Your task to perform on an android device: open app "Speedtest by Ookla" (install if not already installed) Image 0: 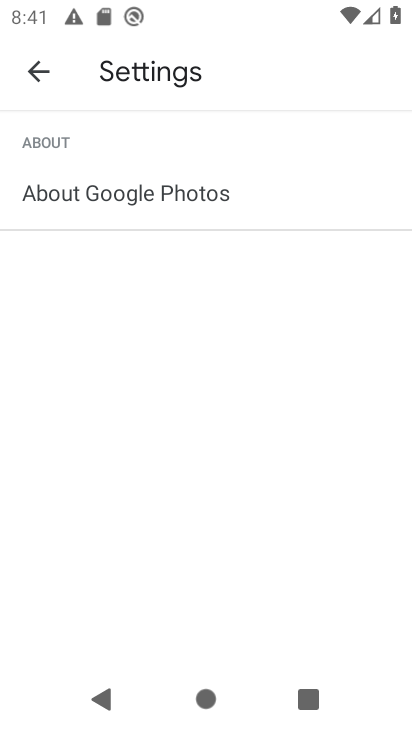
Step 0: press home button
Your task to perform on an android device: open app "Speedtest by Ookla" (install if not already installed) Image 1: 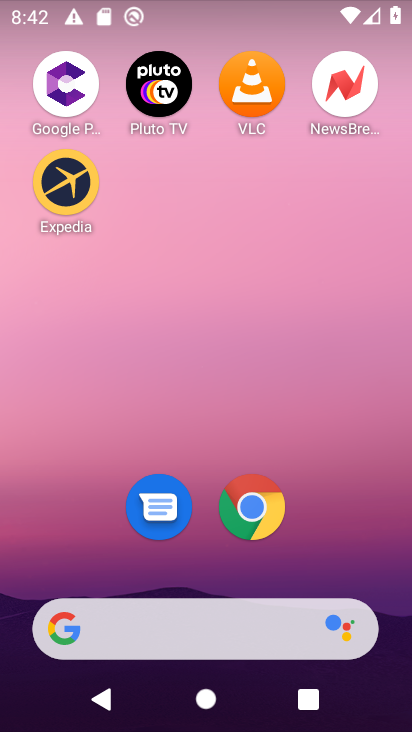
Step 1: drag from (157, 632) to (231, 105)
Your task to perform on an android device: open app "Speedtest by Ookla" (install if not already installed) Image 2: 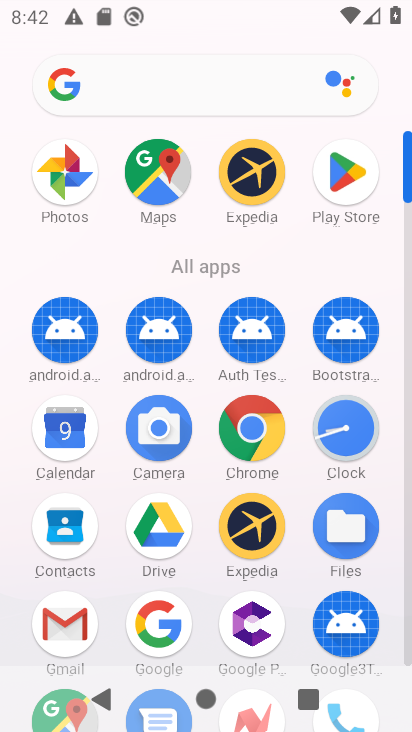
Step 2: drag from (212, 596) to (226, 270)
Your task to perform on an android device: open app "Speedtest by Ookla" (install if not already installed) Image 3: 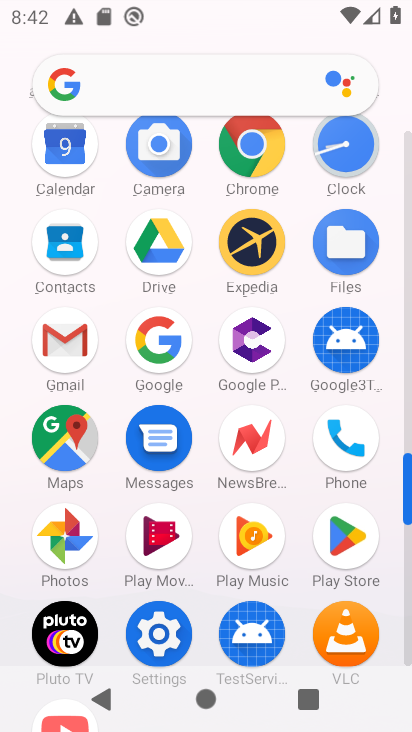
Step 3: click (356, 533)
Your task to perform on an android device: open app "Speedtest by Ookla" (install if not already installed) Image 4: 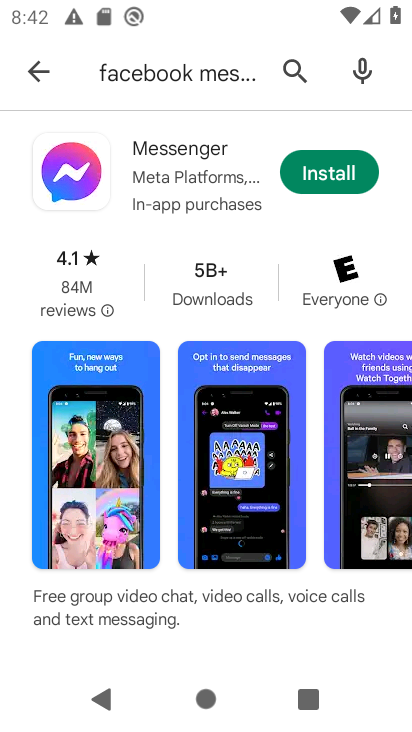
Step 4: click (295, 62)
Your task to perform on an android device: open app "Speedtest by Ookla" (install if not already installed) Image 5: 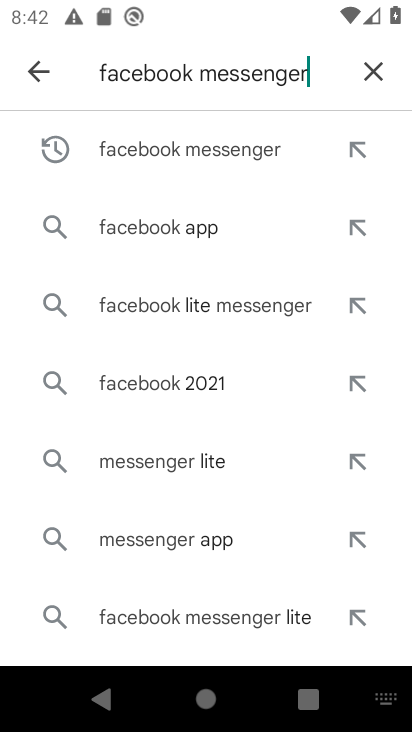
Step 5: click (372, 69)
Your task to perform on an android device: open app "Speedtest by Ookla" (install if not already installed) Image 6: 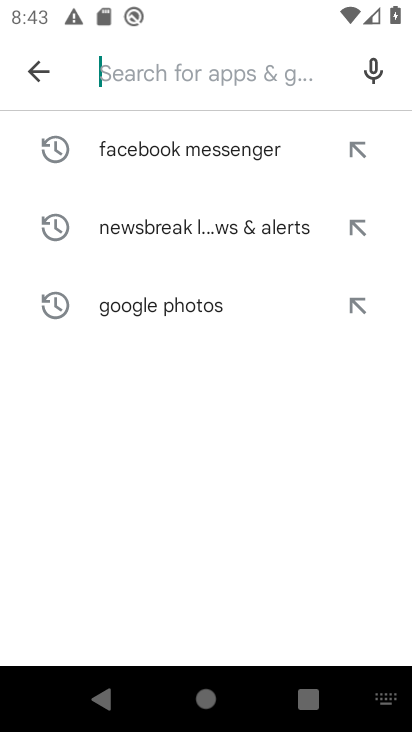
Step 6: type "Speedtest by Ookla"
Your task to perform on an android device: open app "Speedtest by Ookla" (install if not already installed) Image 7: 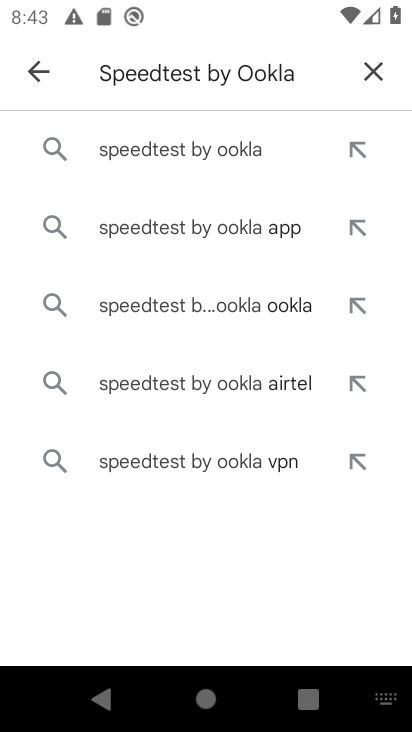
Step 7: click (222, 151)
Your task to perform on an android device: open app "Speedtest by Ookla" (install if not already installed) Image 8: 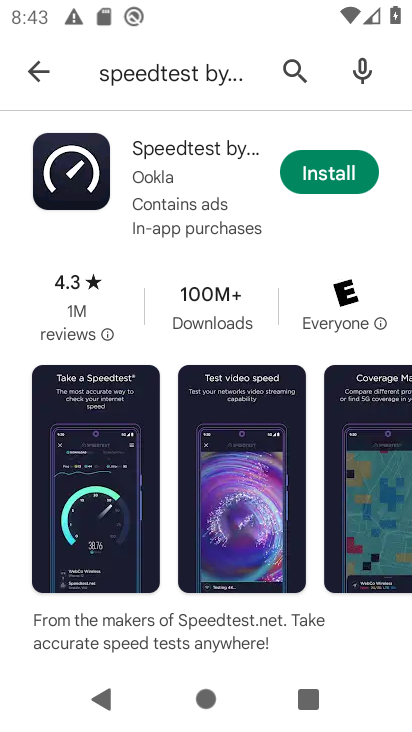
Step 8: click (318, 170)
Your task to perform on an android device: open app "Speedtest by Ookla" (install if not already installed) Image 9: 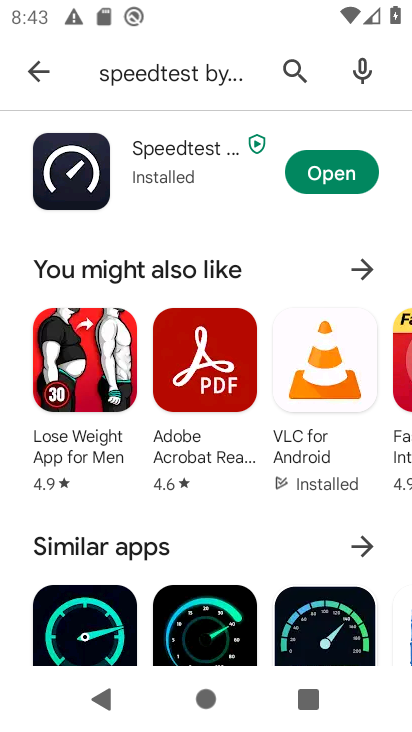
Step 9: click (338, 176)
Your task to perform on an android device: open app "Speedtest by Ookla" (install if not already installed) Image 10: 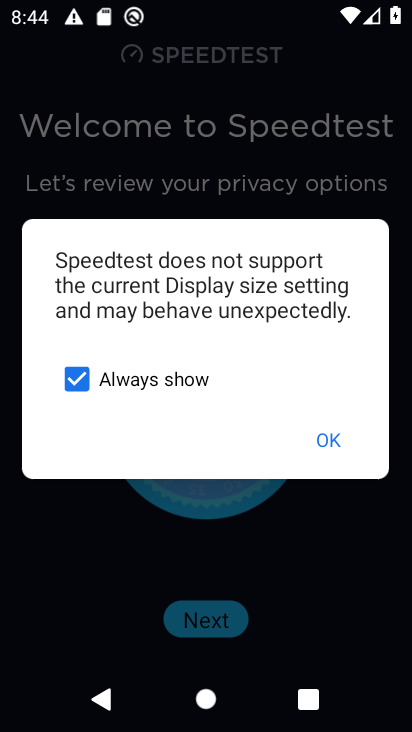
Step 10: click (328, 438)
Your task to perform on an android device: open app "Speedtest by Ookla" (install if not already installed) Image 11: 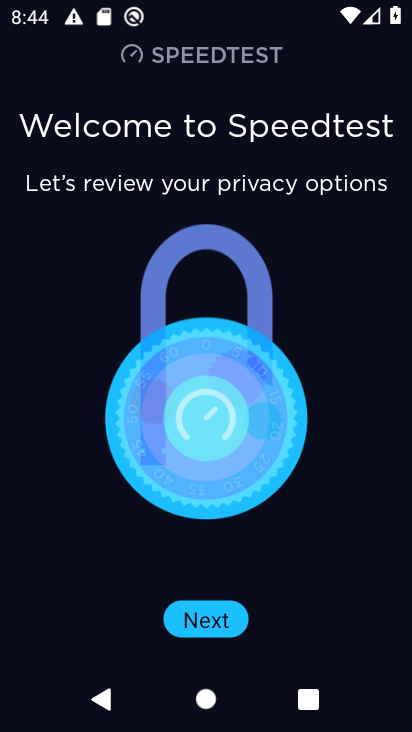
Step 11: click (205, 618)
Your task to perform on an android device: open app "Speedtest by Ookla" (install if not already installed) Image 12: 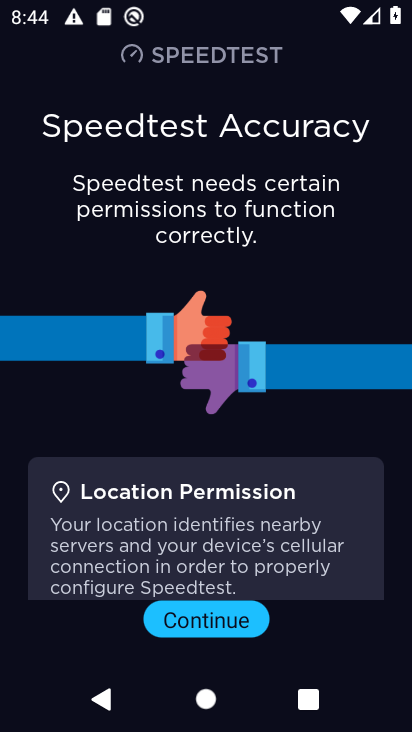
Step 12: click (205, 618)
Your task to perform on an android device: open app "Speedtest by Ookla" (install if not already installed) Image 13: 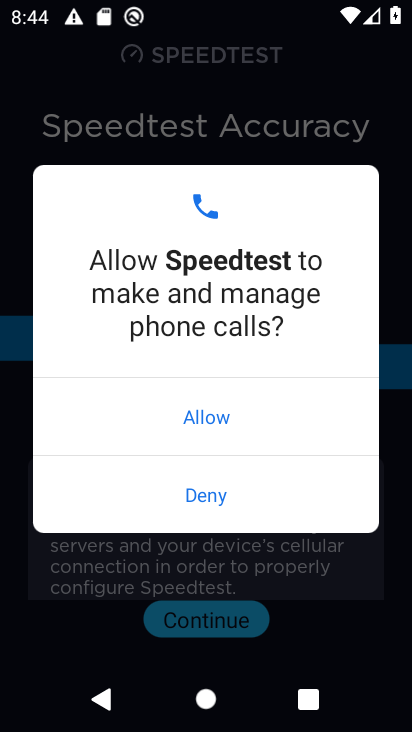
Step 13: click (216, 405)
Your task to perform on an android device: open app "Speedtest by Ookla" (install if not already installed) Image 14: 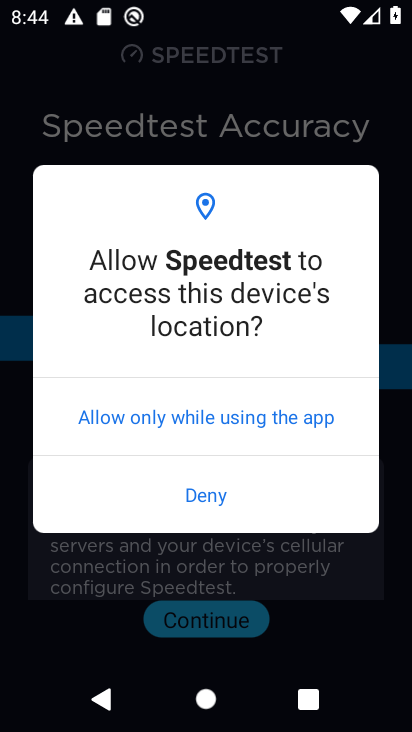
Step 14: click (216, 405)
Your task to perform on an android device: open app "Speedtest by Ookla" (install if not already installed) Image 15: 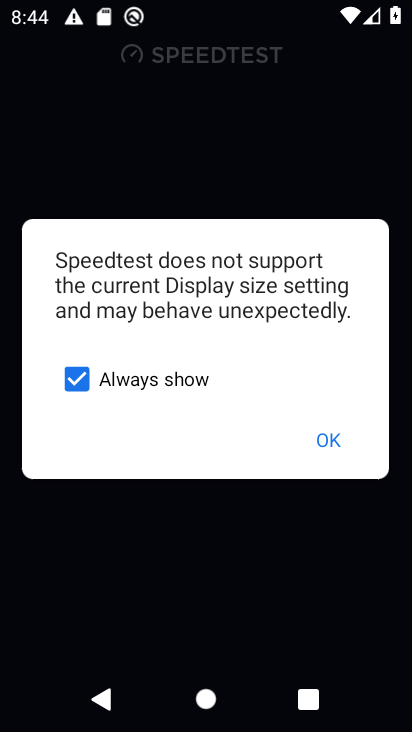
Step 15: click (328, 438)
Your task to perform on an android device: open app "Speedtest by Ookla" (install if not already installed) Image 16: 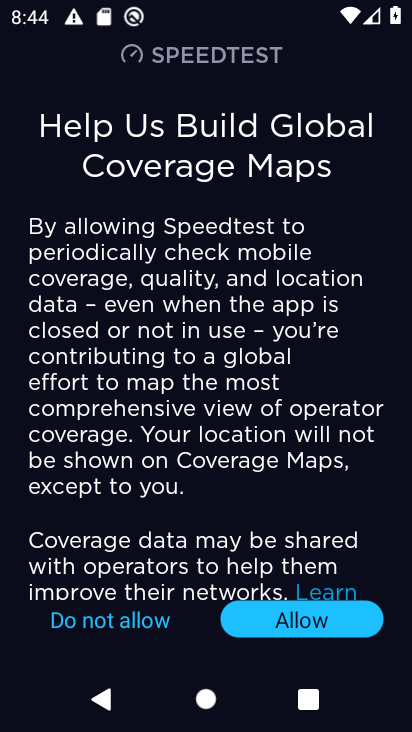
Step 16: click (302, 617)
Your task to perform on an android device: open app "Speedtest by Ookla" (install if not already installed) Image 17: 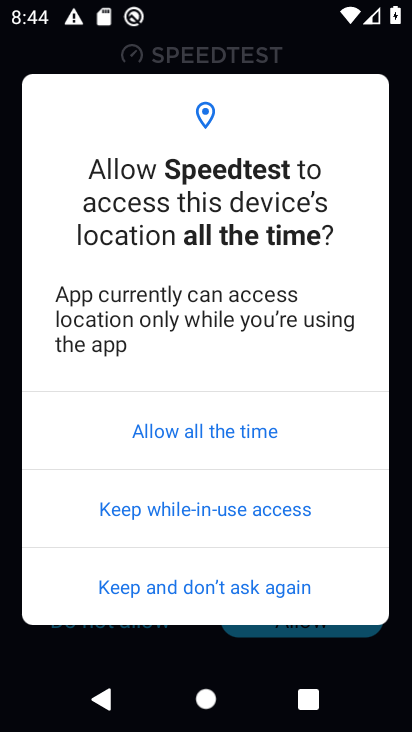
Step 17: click (249, 421)
Your task to perform on an android device: open app "Speedtest by Ookla" (install if not already installed) Image 18: 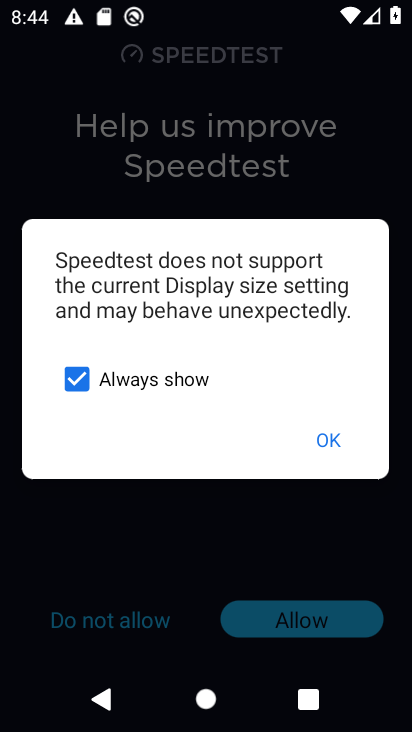
Step 18: click (339, 433)
Your task to perform on an android device: open app "Speedtest by Ookla" (install if not already installed) Image 19: 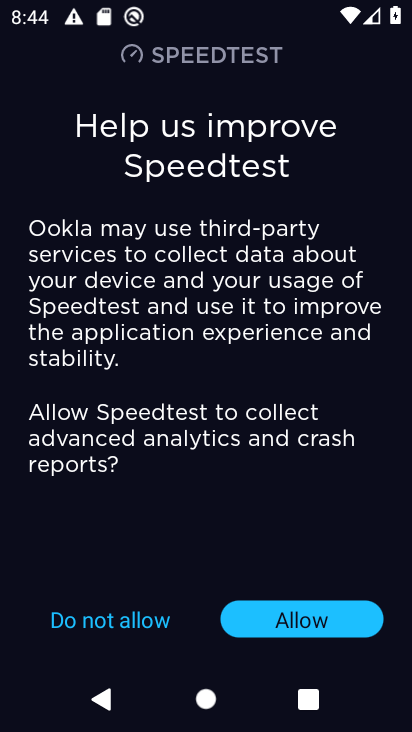
Step 19: click (299, 613)
Your task to perform on an android device: open app "Speedtest by Ookla" (install if not already installed) Image 20: 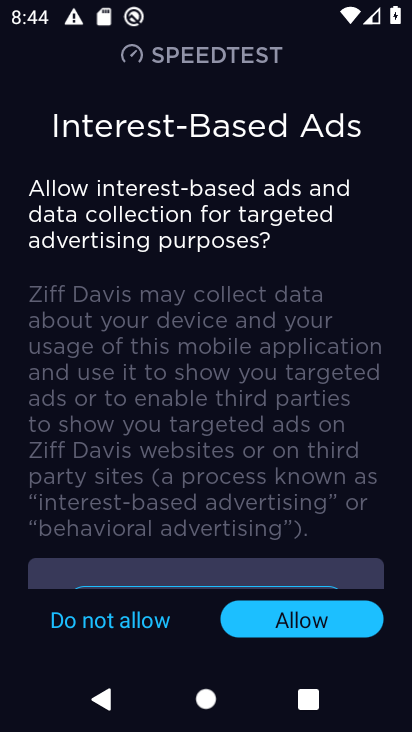
Step 20: click (299, 613)
Your task to perform on an android device: open app "Speedtest by Ookla" (install if not already installed) Image 21: 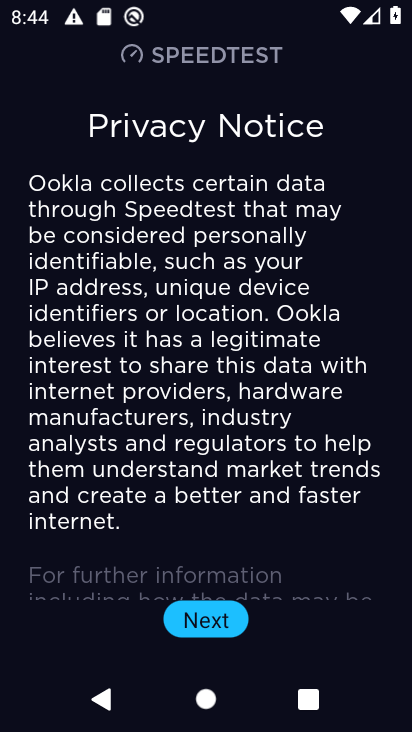
Step 21: click (210, 615)
Your task to perform on an android device: open app "Speedtest by Ookla" (install if not already installed) Image 22: 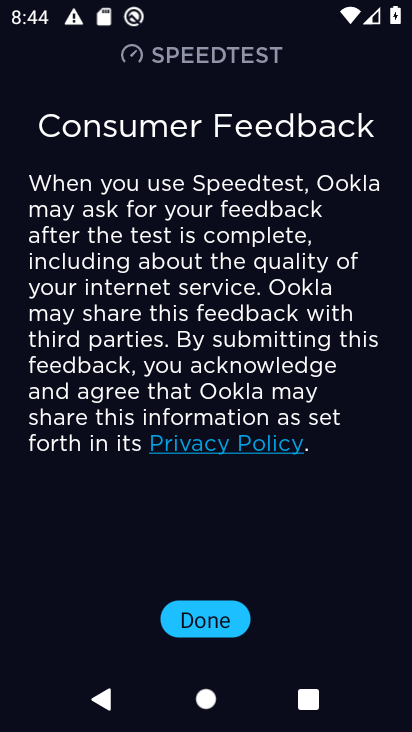
Step 22: click (210, 622)
Your task to perform on an android device: open app "Speedtest by Ookla" (install if not already installed) Image 23: 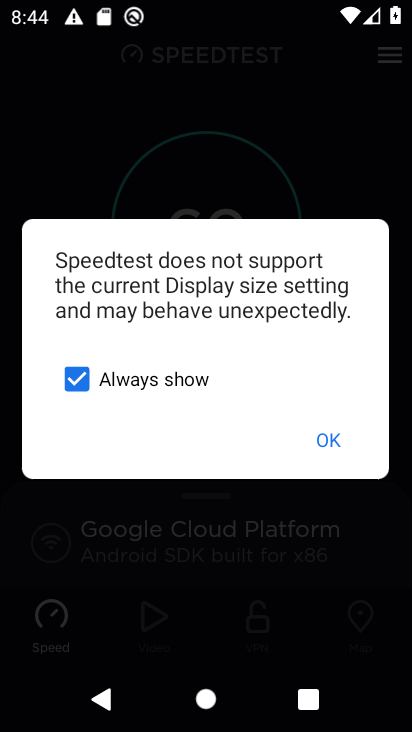
Step 23: click (323, 433)
Your task to perform on an android device: open app "Speedtest by Ookla" (install if not already installed) Image 24: 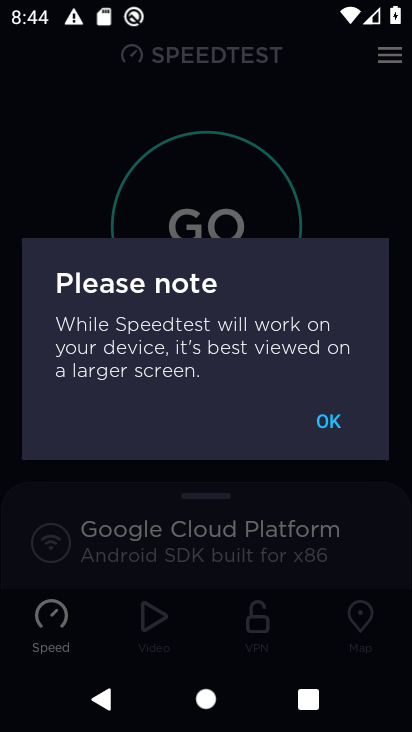
Step 24: click (326, 428)
Your task to perform on an android device: open app "Speedtest by Ookla" (install if not already installed) Image 25: 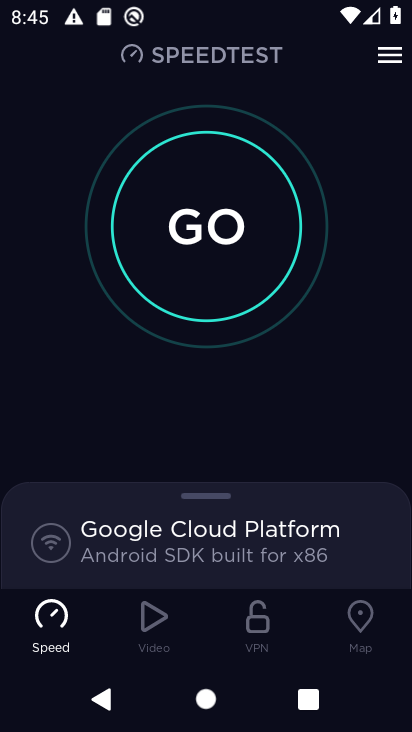
Step 25: task complete